Your task to perform on an android device: set default search engine in the chrome app Image 0: 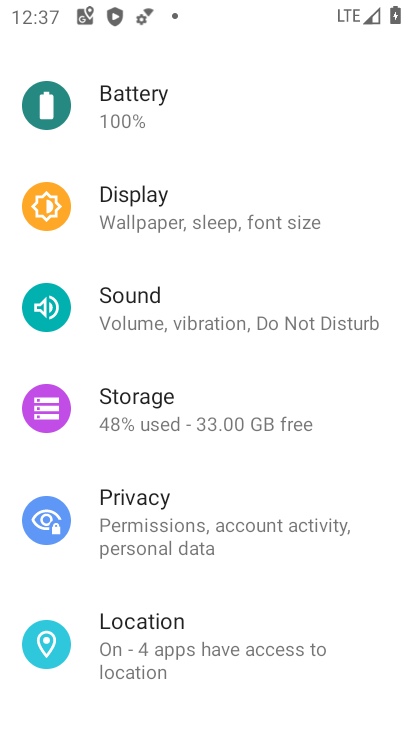
Step 0: press home button
Your task to perform on an android device: set default search engine in the chrome app Image 1: 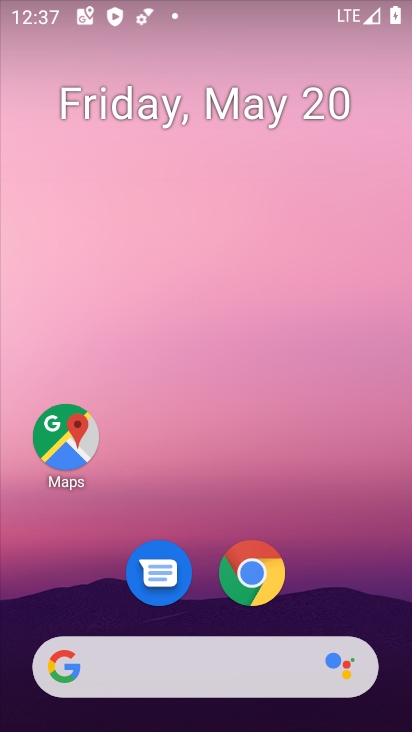
Step 1: click (236, 576)
Your task to perform on an android device: set default search engine in the chrome app Image 2: 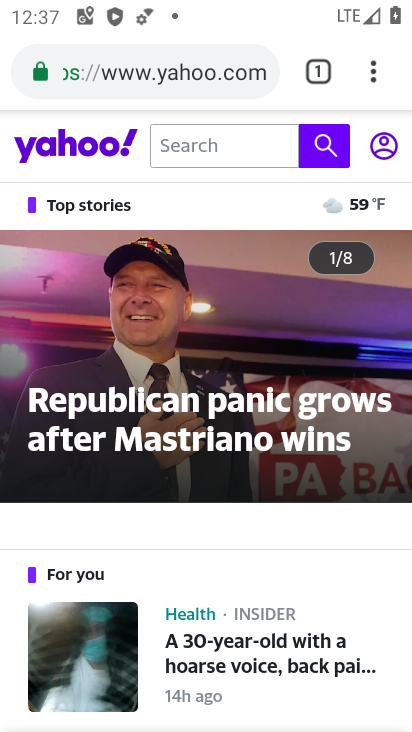
Step 2: click (390, 77)
Your task to perform on an android device: set default search engine in the chrome app Image 3: 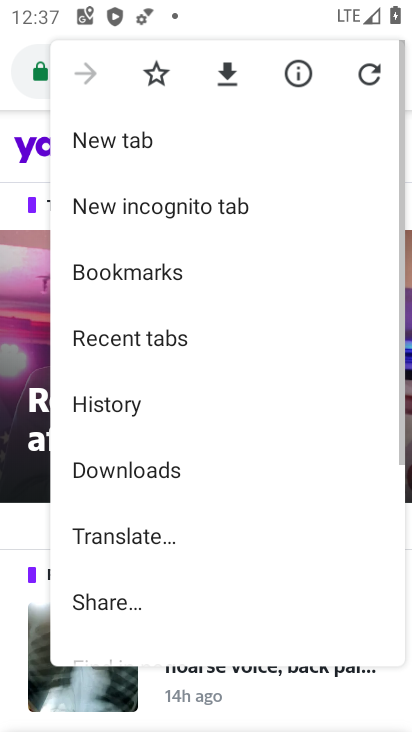
Step 3: drag from (124, 542) to (229, 298)
Your task to perform on an android device: set default search engine in the chrome app Image 4: 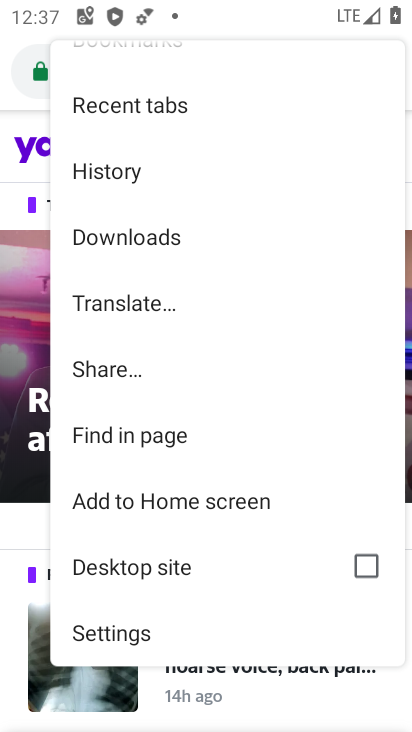
Step 4: drag from (146, 630) to (192, 429)
Your task to perform on an android device: set default search engine in the chrome app Image 5: 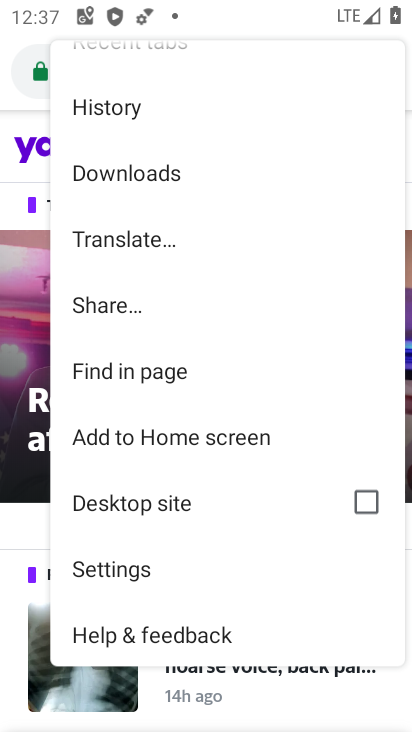
Step 5: click (108, 577)
Your task to perform on an android device: set default search engine in the chrome app Image 6: 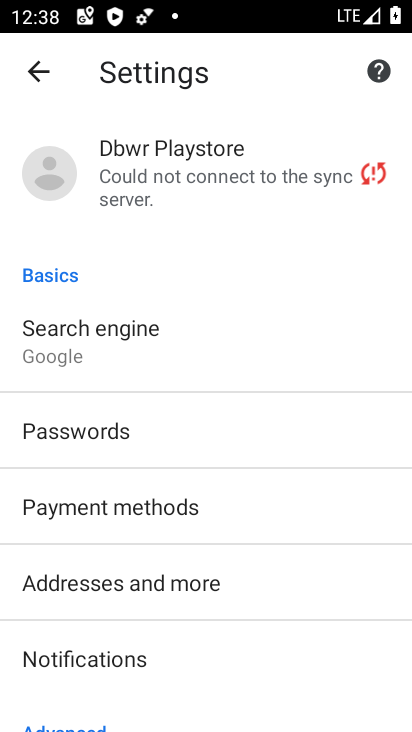
Step 6: drag from (248, 612) to (281, 479)
Your task to perform on an android device: set default search engine in the chrome app Image 7: 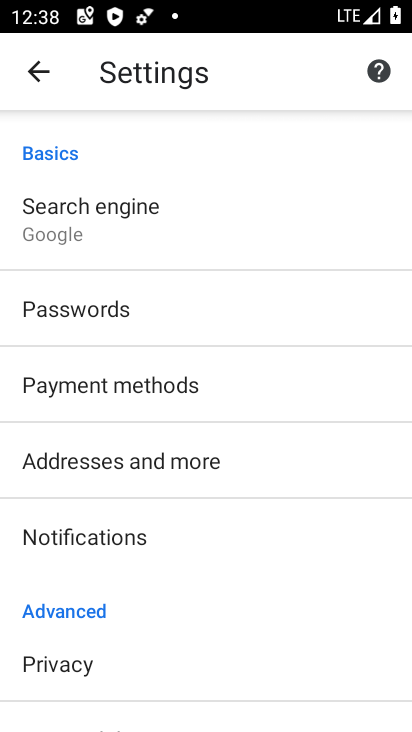
Step 7: click (107, 202)
Your task to perform on an android device: set default search engine in the chrome app Image 8: 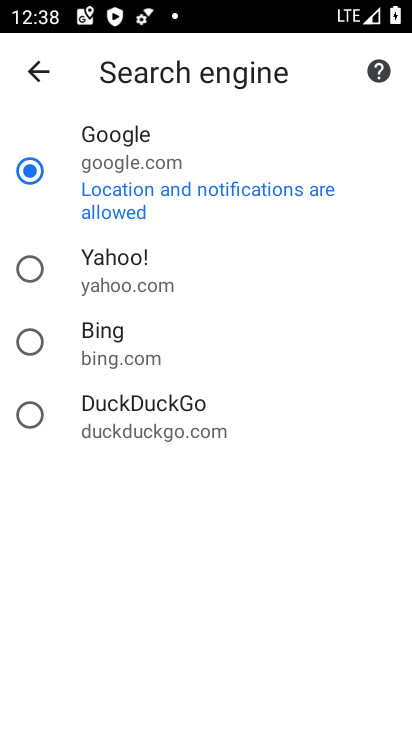
Step 8: task complete